Your task to perform on an android device: turn off location history Image 0: 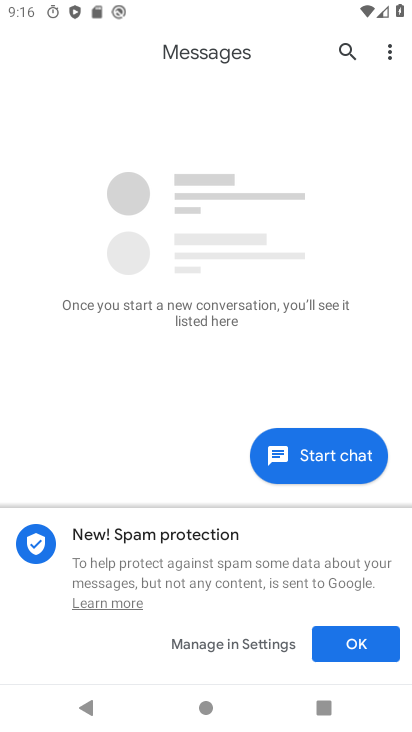
Step 0: press home button
Your task to perform on an android device: turn off location history Image 1: 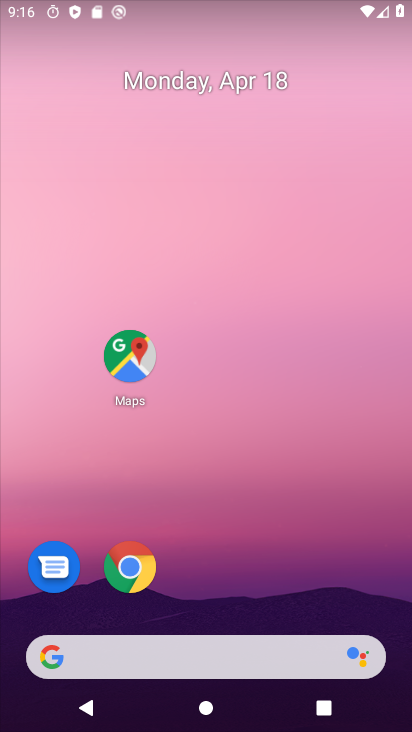
Step 1: drag from (300, 688) to (273, 393)
Your task to perform on an android device: turn off location history Image 2: 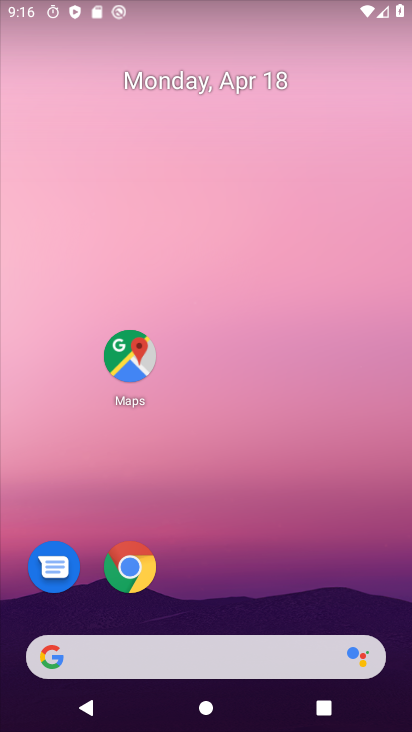
Step 2: drag from (261, 688) to (407, 300)
Your task to perform on an android device: turn off location history Image 3: 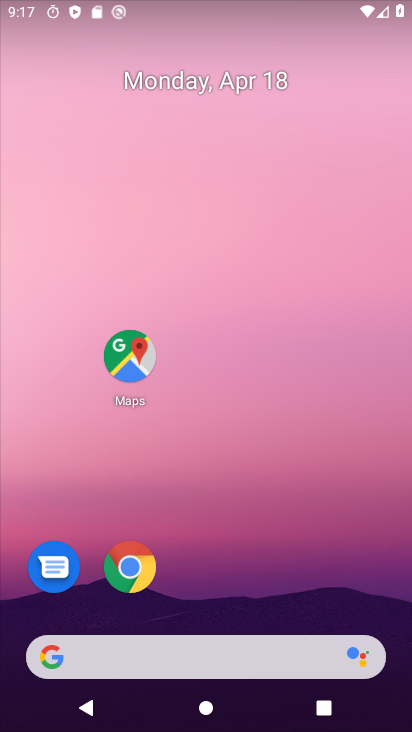
Step 3: drag from (187, 688) to (317, 198)
Your task to perform on an android device: turn off location history Image 4: 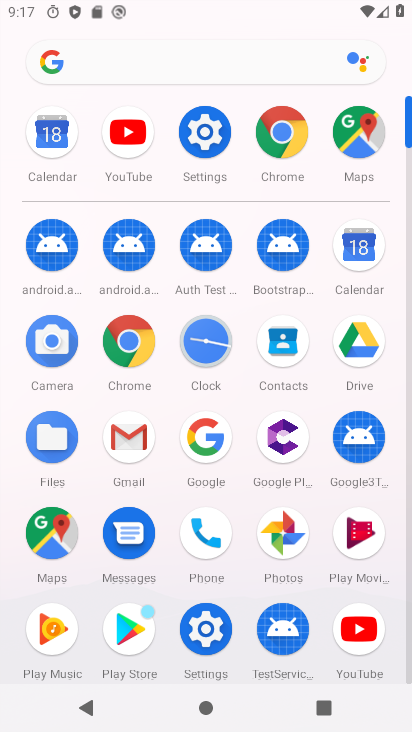
Step 4: click (195, 608)
Your task to perform on an android device: turn off location history Image 5: 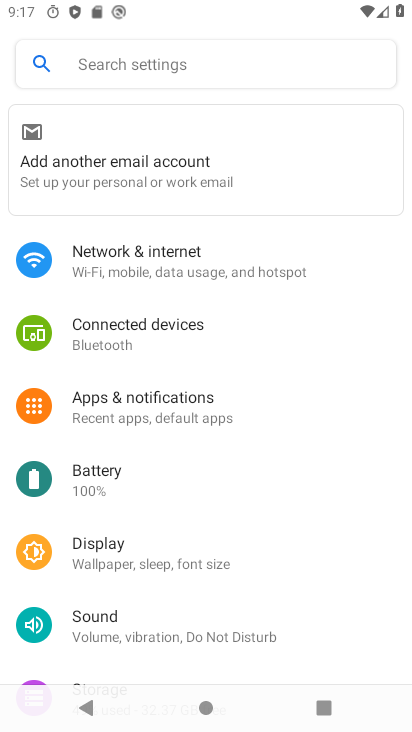
Step 5: click (163, 72)
Your task to perform on an android device: turn off location history Image 6: 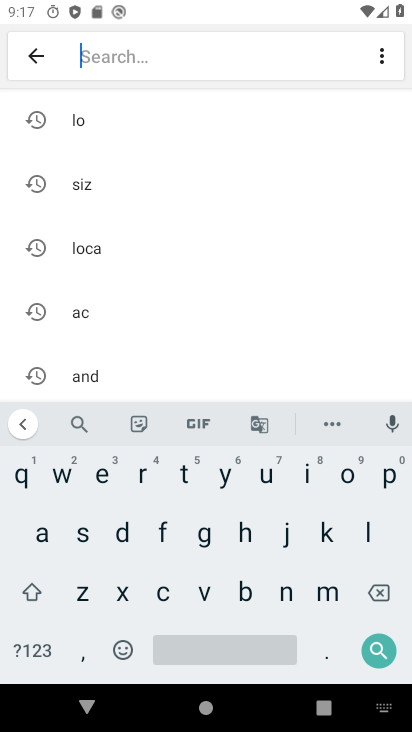
Step 6: click (134, 237)
Your task to perform on an android device: turn off location history Image 7: 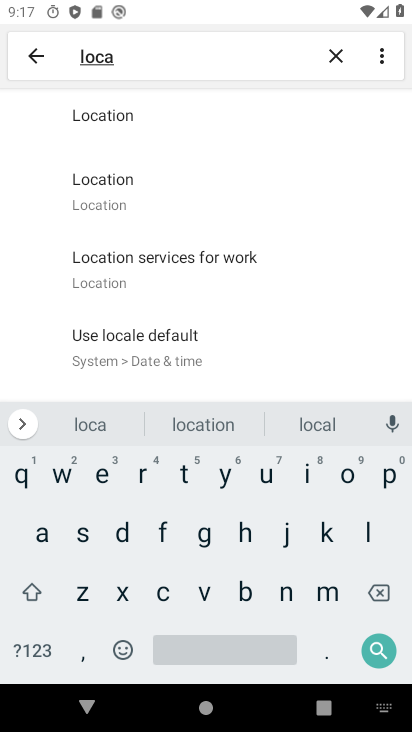
Step 7: click (131, 201)
Your task to perform on an android device: turn off location history Image 8: 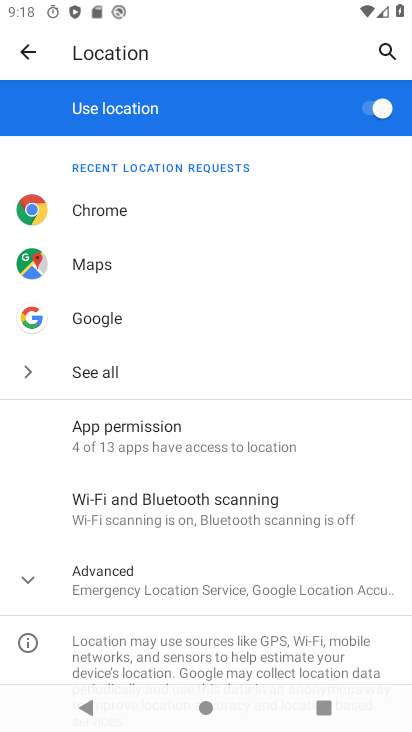
Step 8: click (127, 577)
Your task to perform on an android device: turn off location history Image 9: 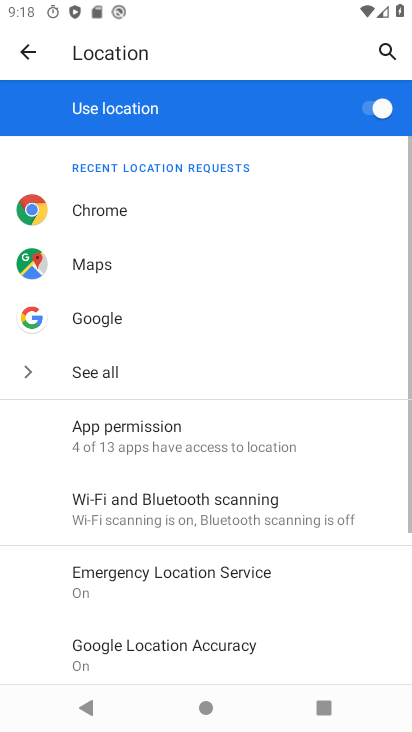
Step 9: drag from (211, 555) to (296, 373)
Your task to perform on an android device: turn off location history Image 10: 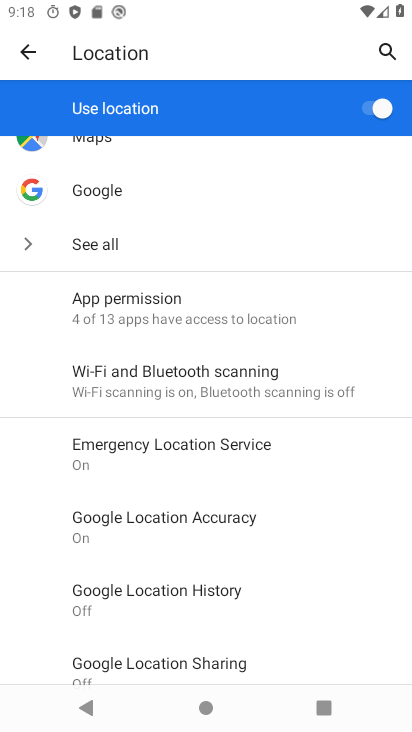
Step 10: click (191, 599)
Your task to perform on an android device: turn off location history Image 11: 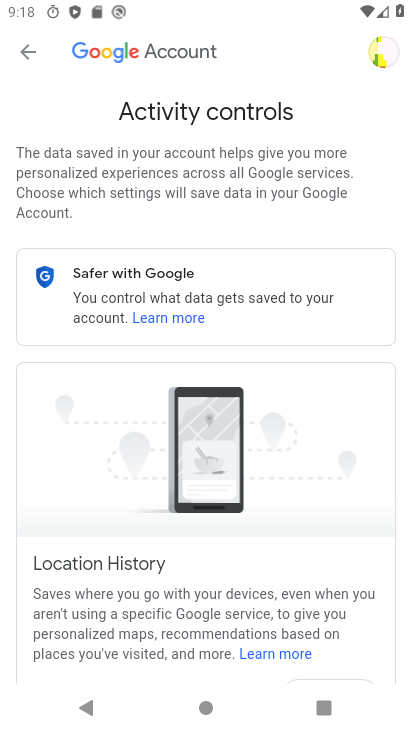
Step 11: drag from (193, 598) to (333, 307)
Your task to perform on an android device: turn off location history Image 12: 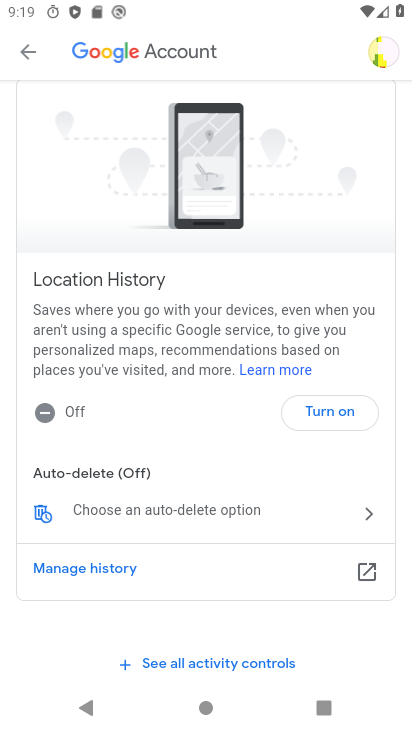
Step 12: drag from (328, 410) to (25, 411)
Your task to perform on an android device: turn off location history Image 13: 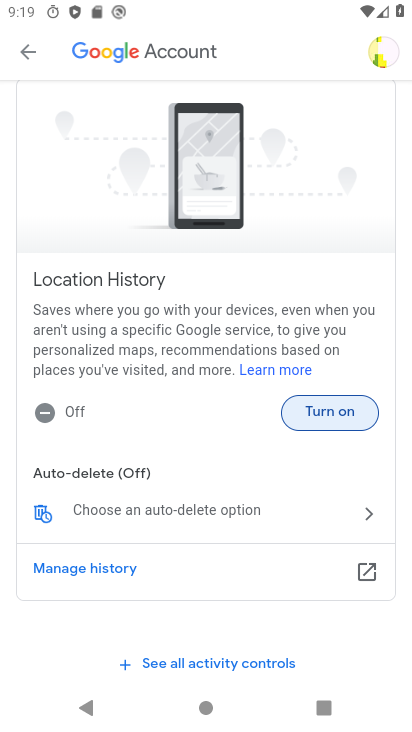
Step 13: click (64, 410)
Your task to perform on an android device: turn off location history Image 14: 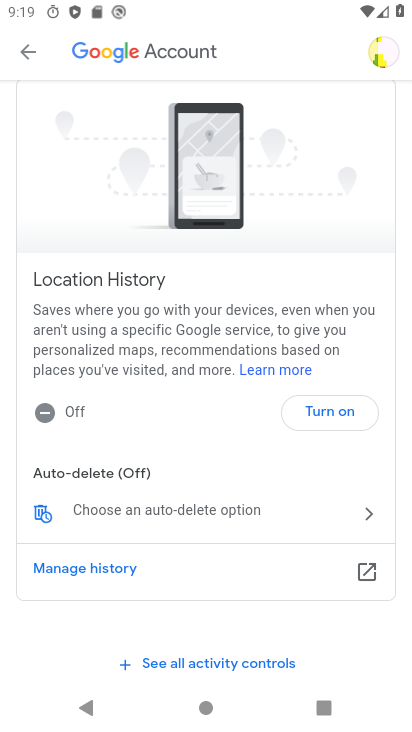
Step 14: task complete